Your task to perform on an android device: turn off notifications settings in the gmail app Image 0: 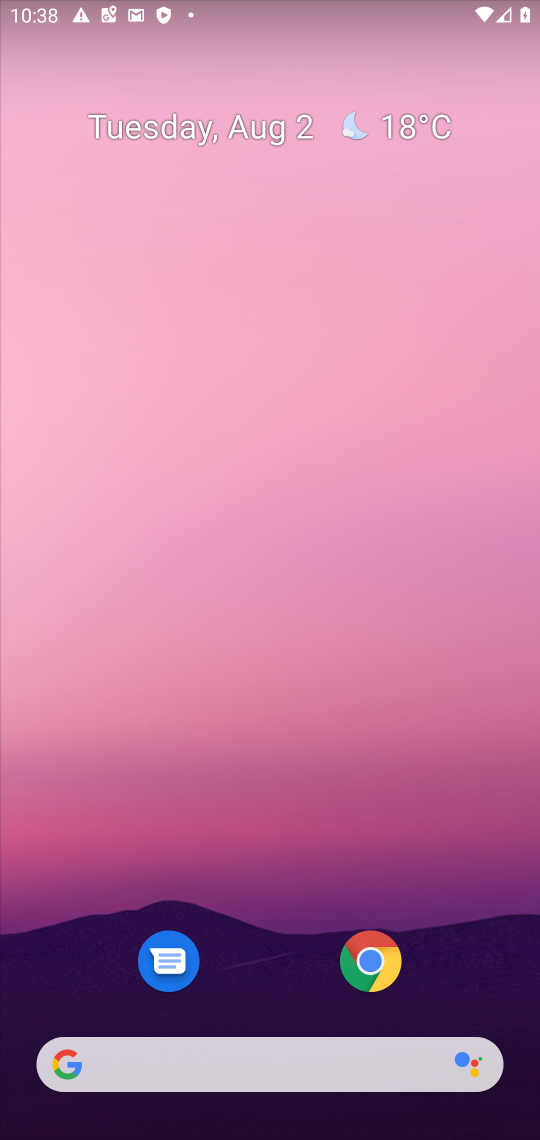
Step 0: drag from (276, 854) to (308, 132)
Your task to perform on an android device: turn off notifications settings in the gmail app Image 1: 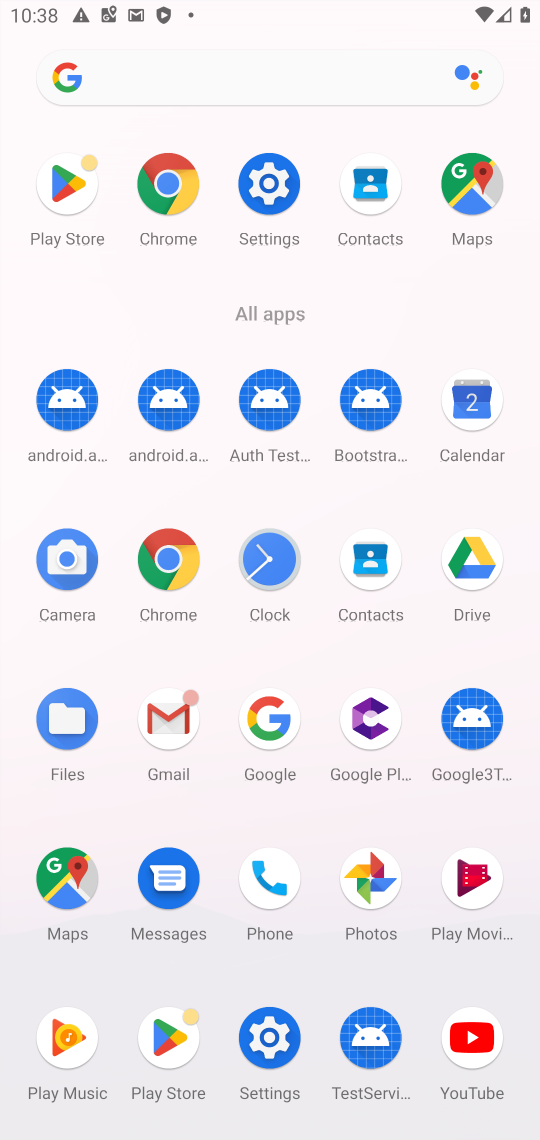
Step 1: click (207, 727)
Your task to perform on an android device: turn off notifications settings in the gmail app Image 2: 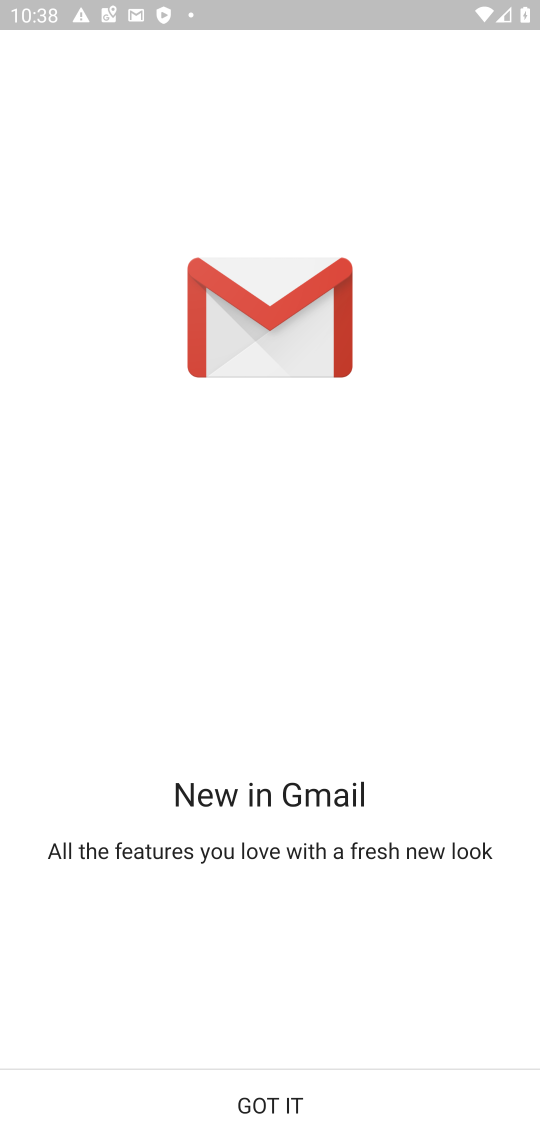
Step 2: click (342, 1120)
Your task to perform on an android device: turn off notifications settings in the gmail app Image 3: 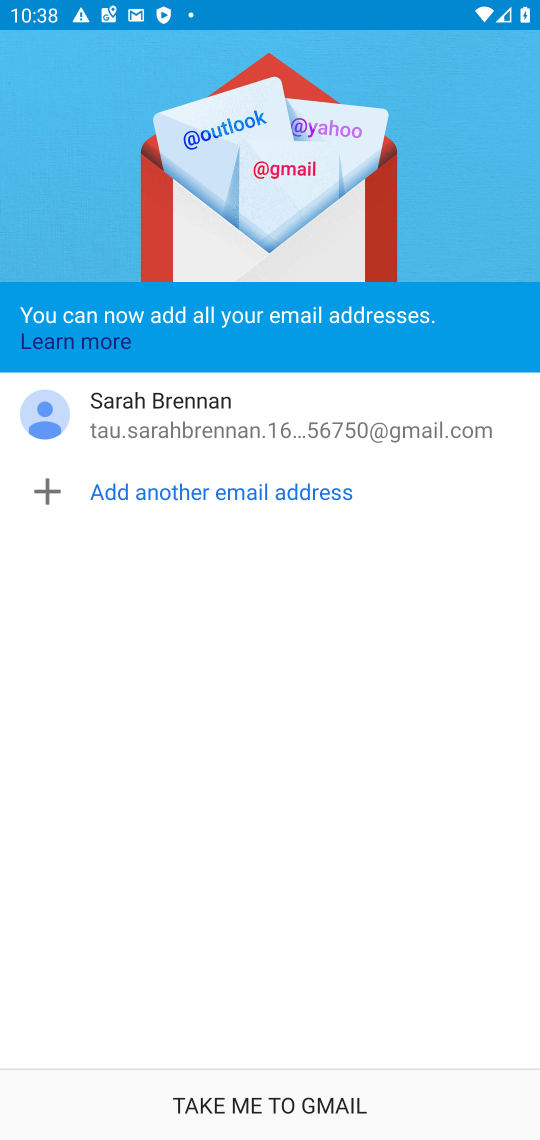
Step 3: click (340, 1088)
Your task to perform on an android device: turn off notifications settings in the gmail app Image 4: 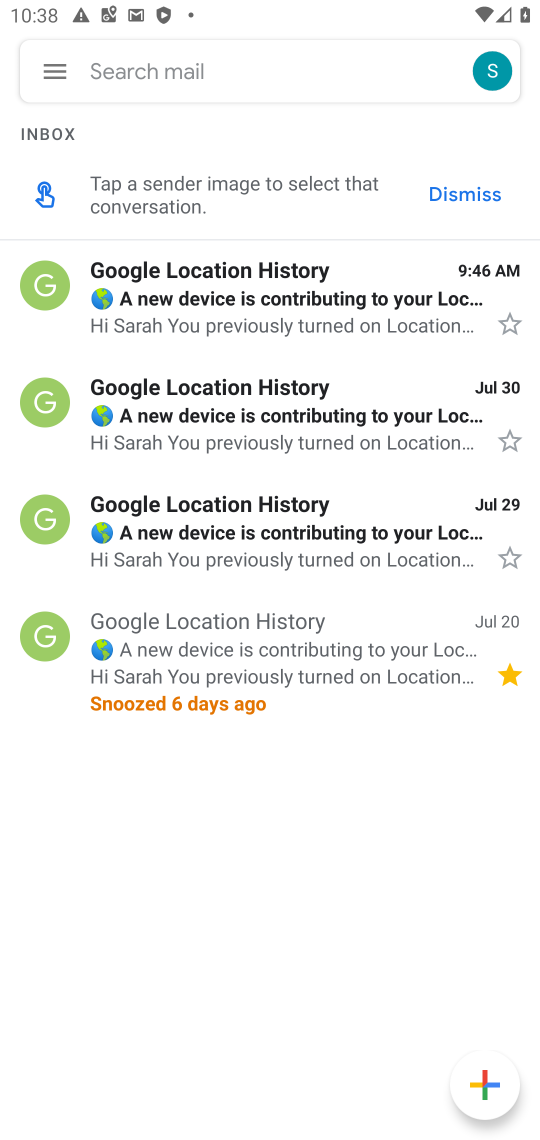
Step 4: press home button
Your task to perform on an android device: turn off notifications settings in the gmail app Image 5: 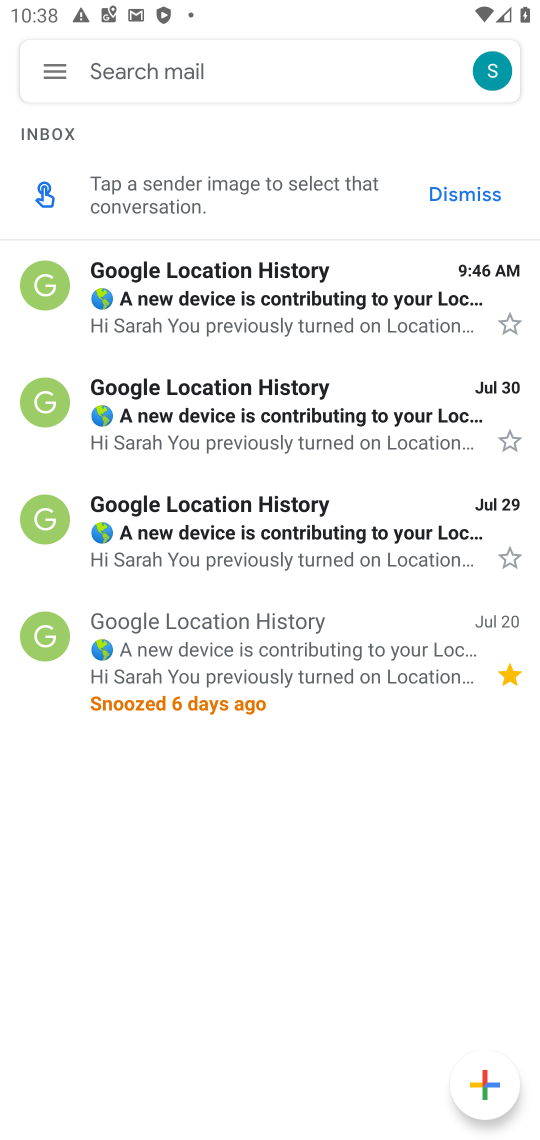
Step 5: press home button
Your task to perform on an android device: turn off notifications settings in the gmail app Image 6: 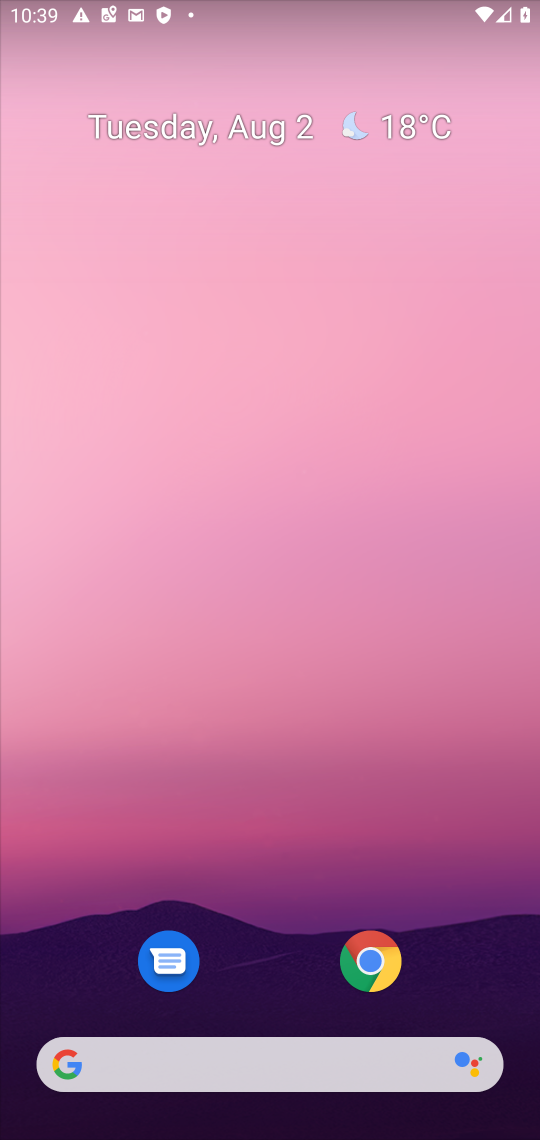
Step 6: drag from (474, 936) to (343, 119)
Your task to perform on an android device: turn off notifications settings in the gmail app Image 7: 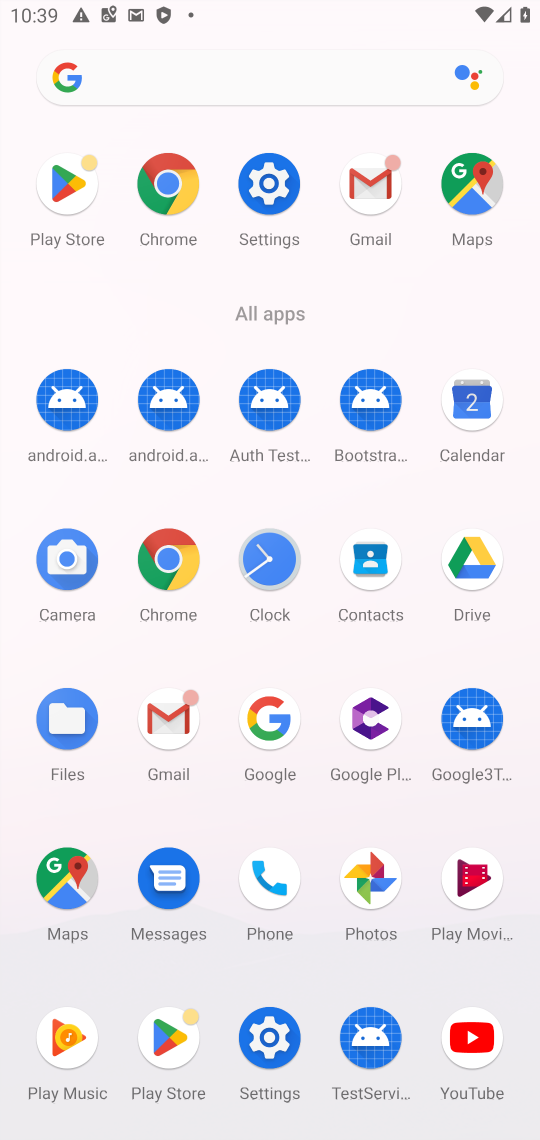
Step 7: click (389, 181)
Your task to perform on an android device: turn off notifications settings in the gmail app Image 8: 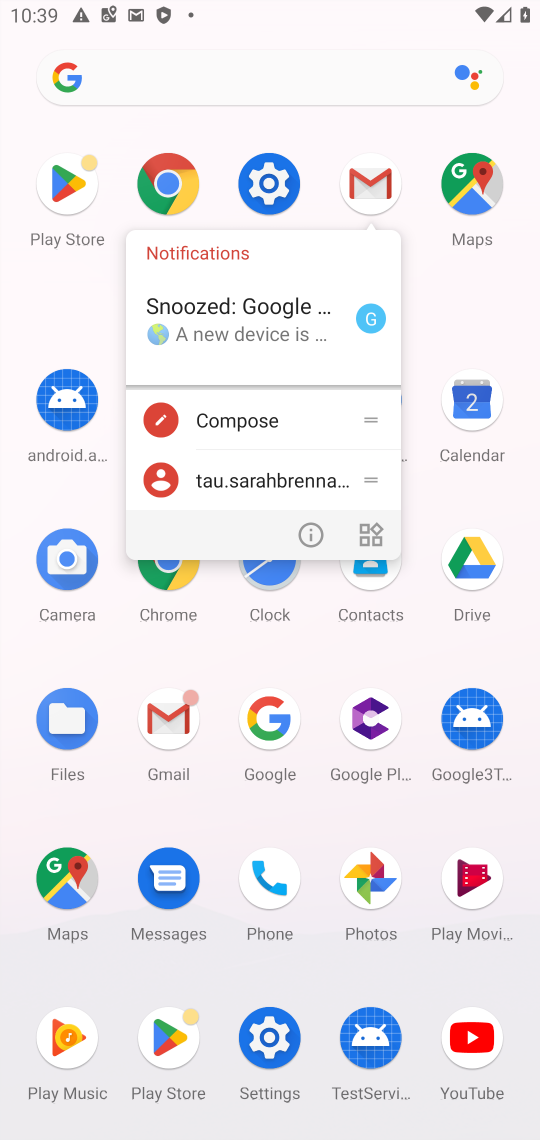
Step 8: click (314, 521)
Your task to perform on an android device: turn off notifications settings in the gmail app Image 9: 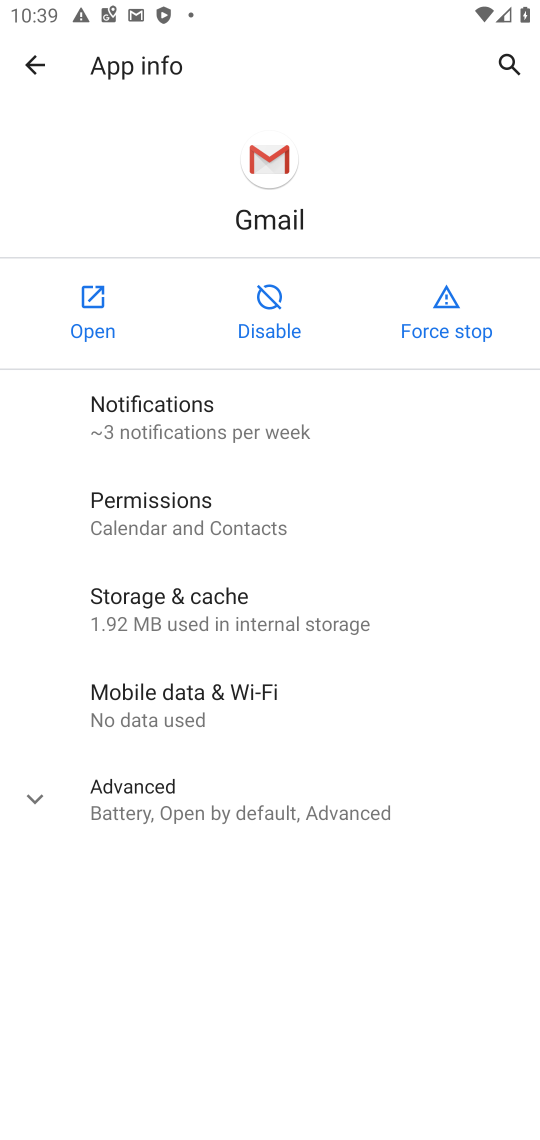
Step 9: click (294, 446)
Your task to perform on an android device: turn off notifications settings in the gmail app Image 10: 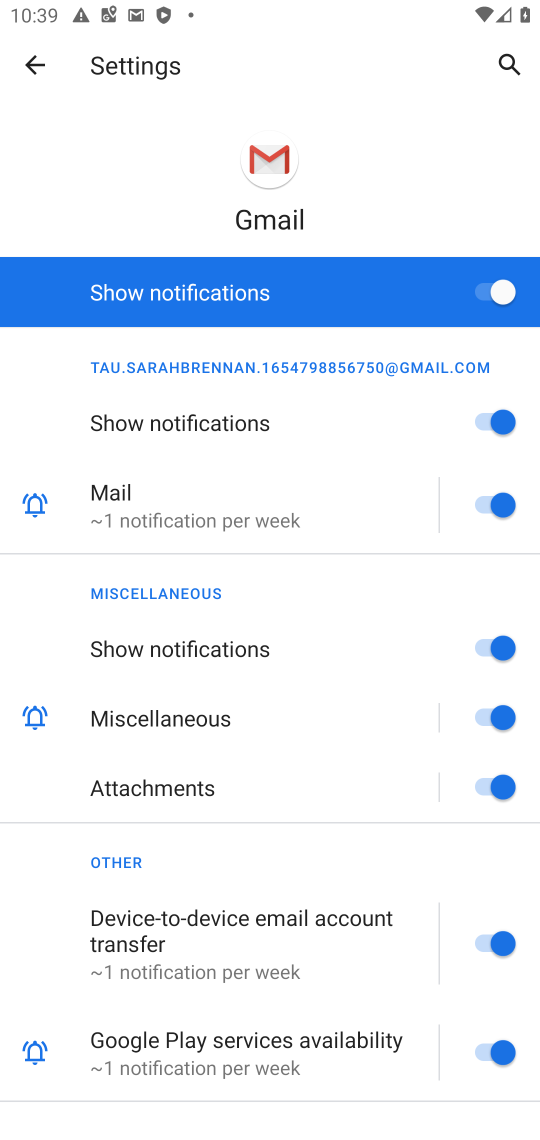
Step 10: click (417, 268)
Your task to perform on an android device: turn off notifications settings in the gmail app Image 11: 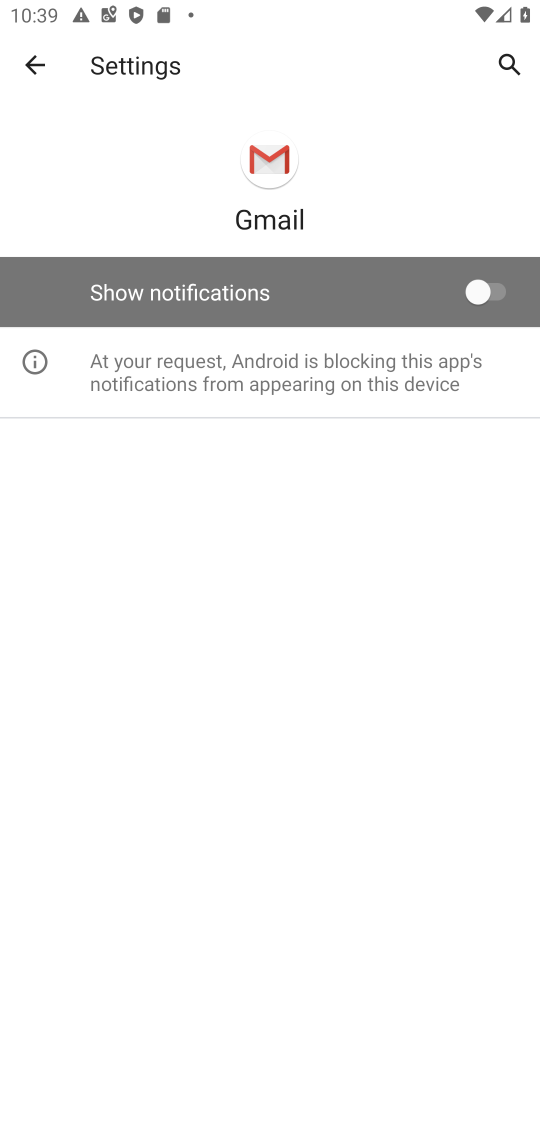
Step 11: click (395, 679)
Your task to perform on an android device: turn off notifications settings in the gmail app Image 12: 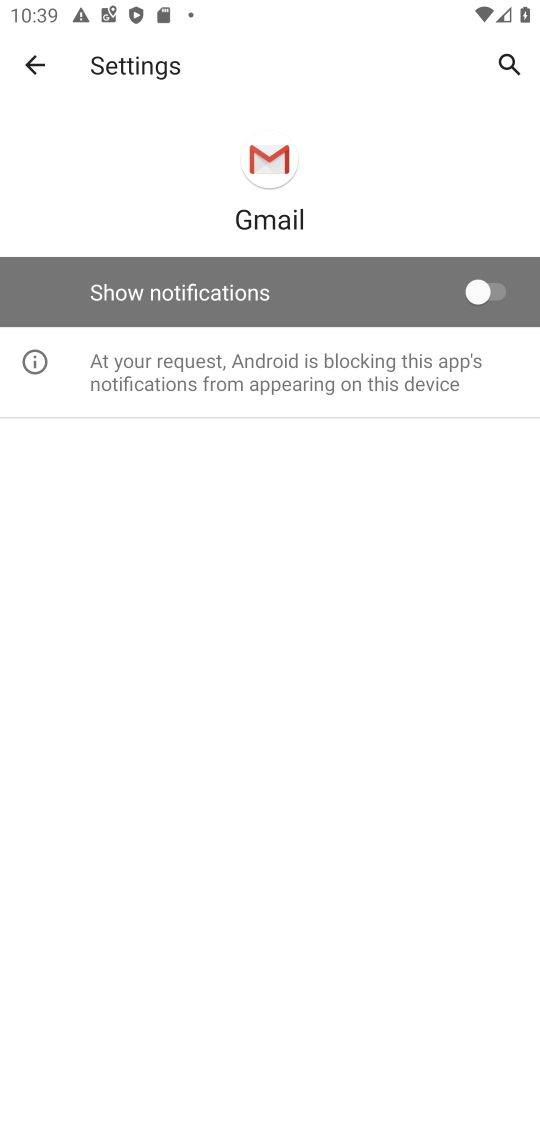
Step 12: click (363, 615)
Your task to perform on an android device: turn off notifications settings in the gmail app Image 13: 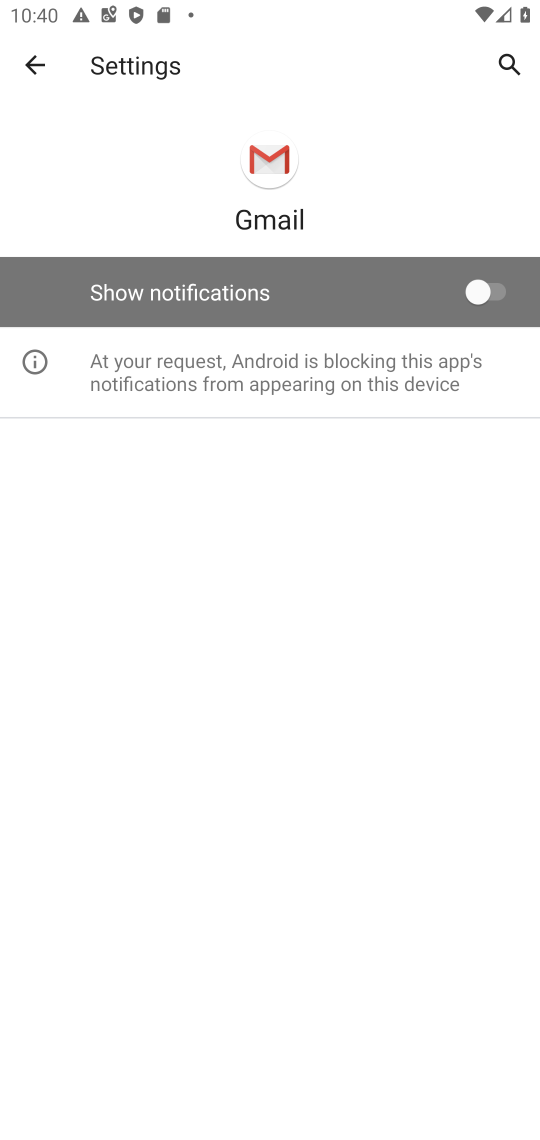
Step 13: task complete